Your task to perform on an android device: refresh tabs in the chrome app Image 0: 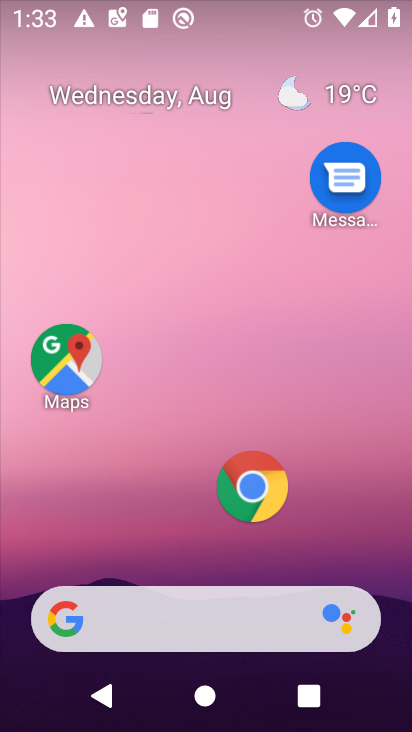
Step 0: click (240, 485)
Your task to perform on an android device: refresh tabs in the chrome app Image 1: 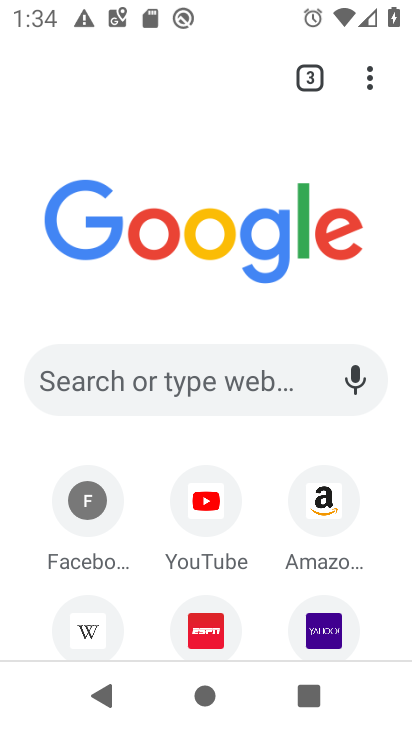
Step 1: click (365, 61)
Your task to perform on an android device: refresh tabs in the chrome app Image 2: 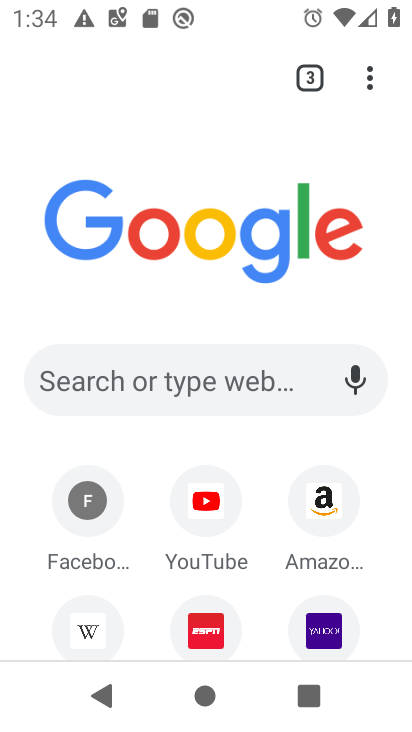
Step 2: task complete